Your task to perform on an android device: Search for razer kraken on bestbuy.com, select the first entry, add it to the cart, then select checkout. Image 0: 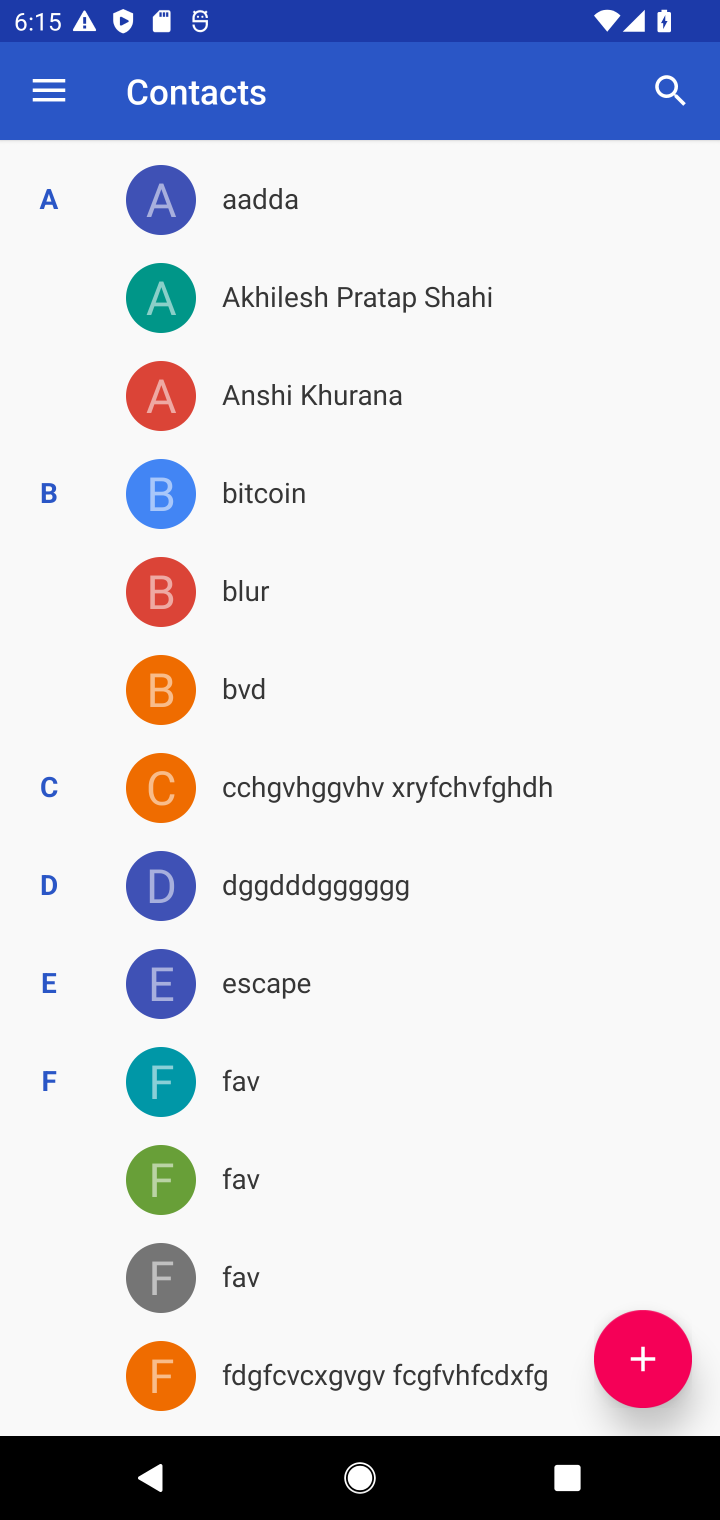
Step 0: press home button
Your task to perform on an android device: Search for razer kraken on bestbuy.com, select the first entry, add it to the cart, then select checkout. Image 1: 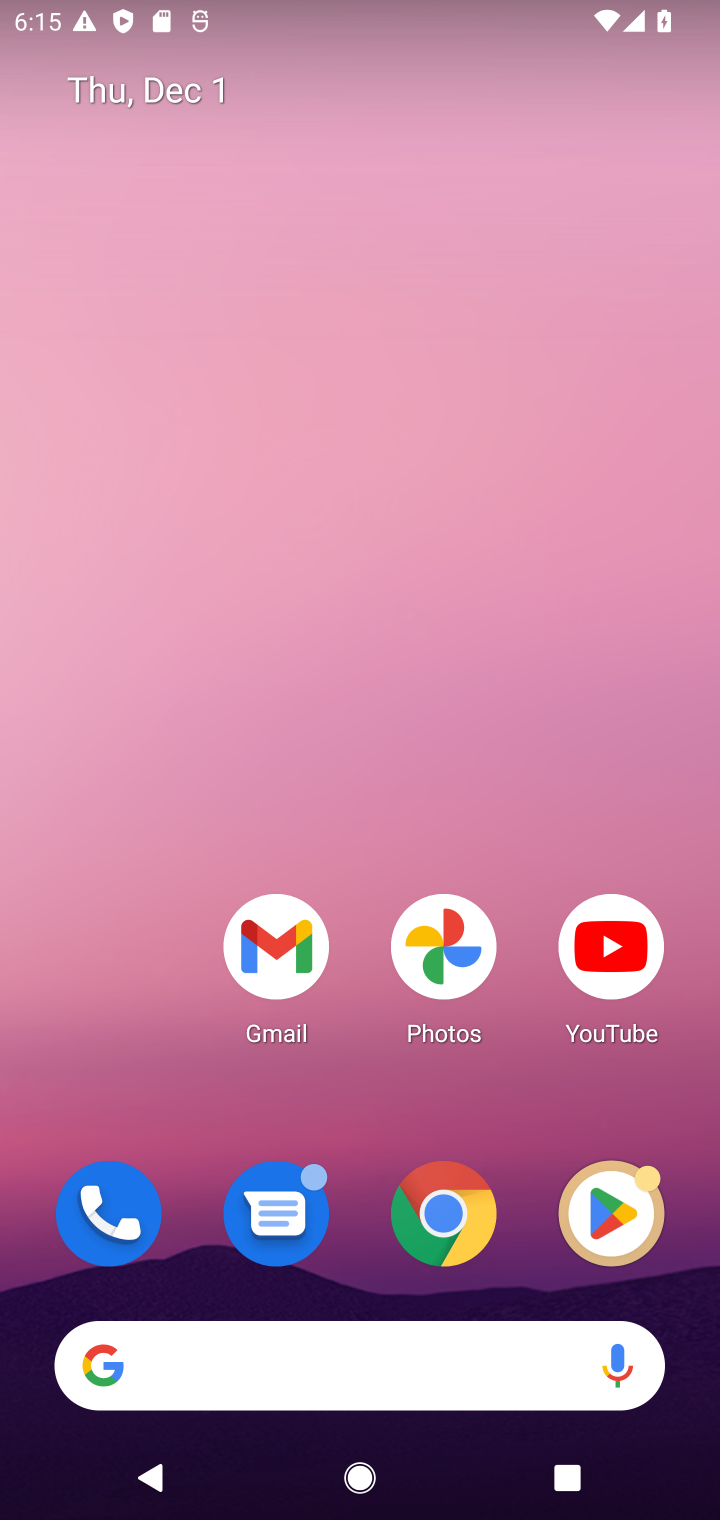
Step 1: click (418, 1354)
Your task to perform on an android device: Search for razer kraken on bestbuy.com, select the first entry, add it to the cart, then select checkout. Image 2: 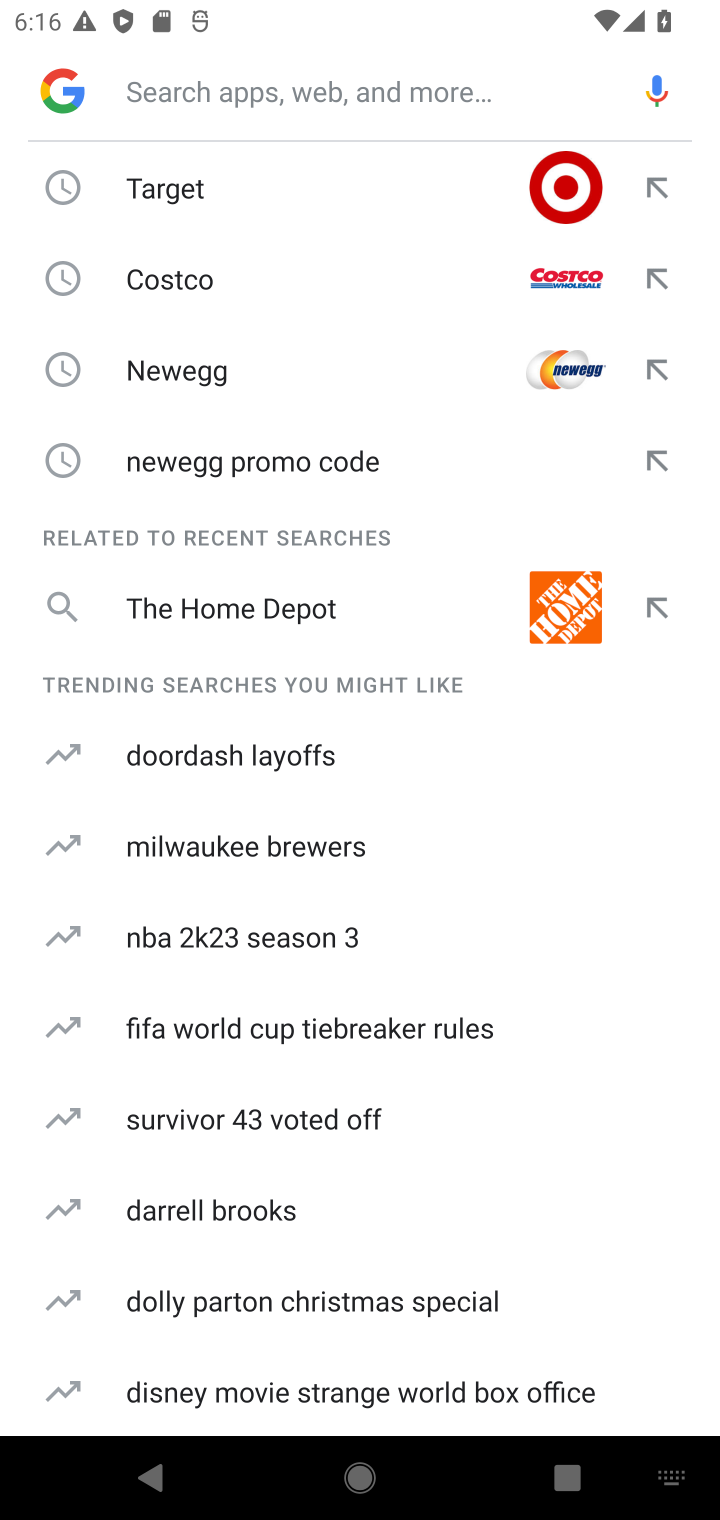
Step 2: type "bestbuy"
Your task to perform on an android device: Search for razer kraken on bestbuy.com, select the first entry, add it to the cart, then select checkout. Image 3: 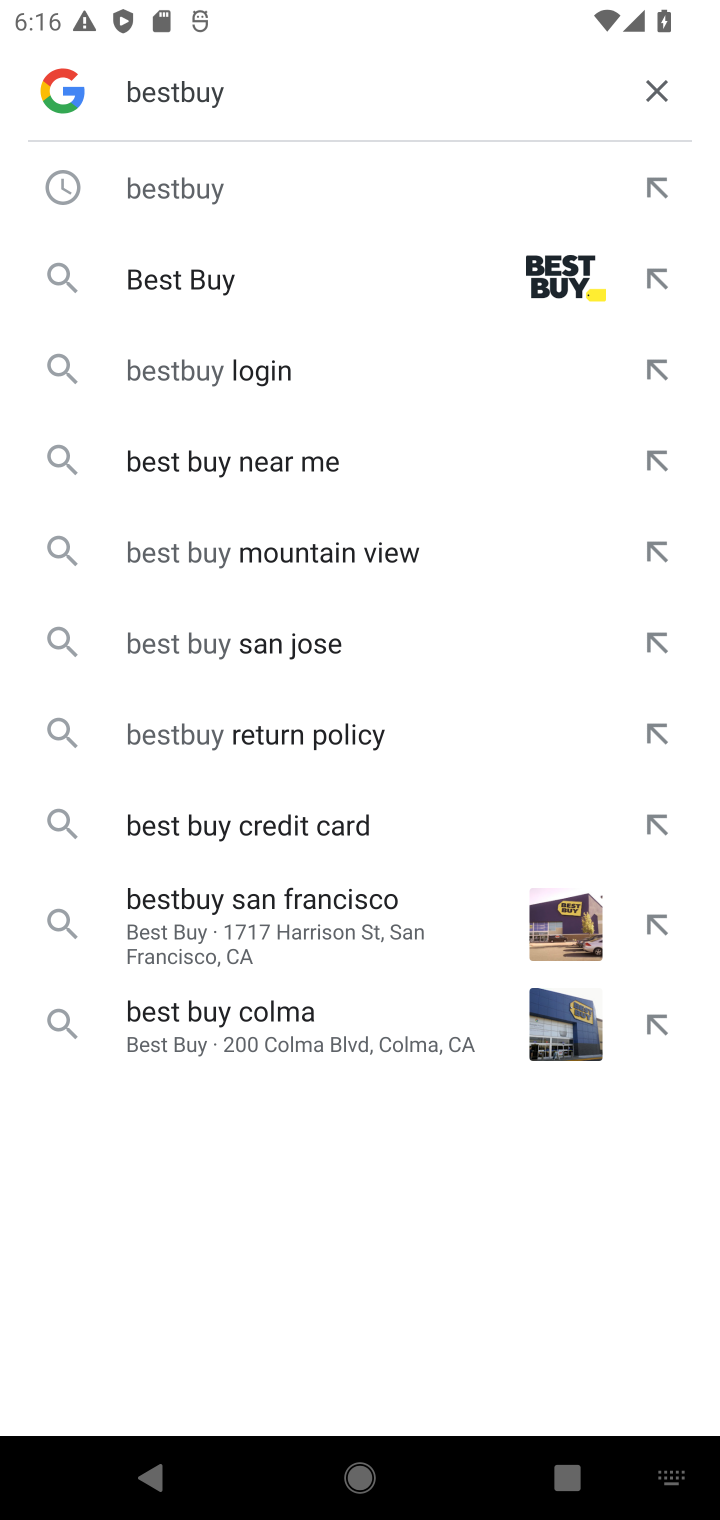
Step 3: click (385, 272)
Your task to perform on an android device: Search for razer kraken on bestbuy.com, select the first entry, add it to the cart, then select checkout. Image 4: 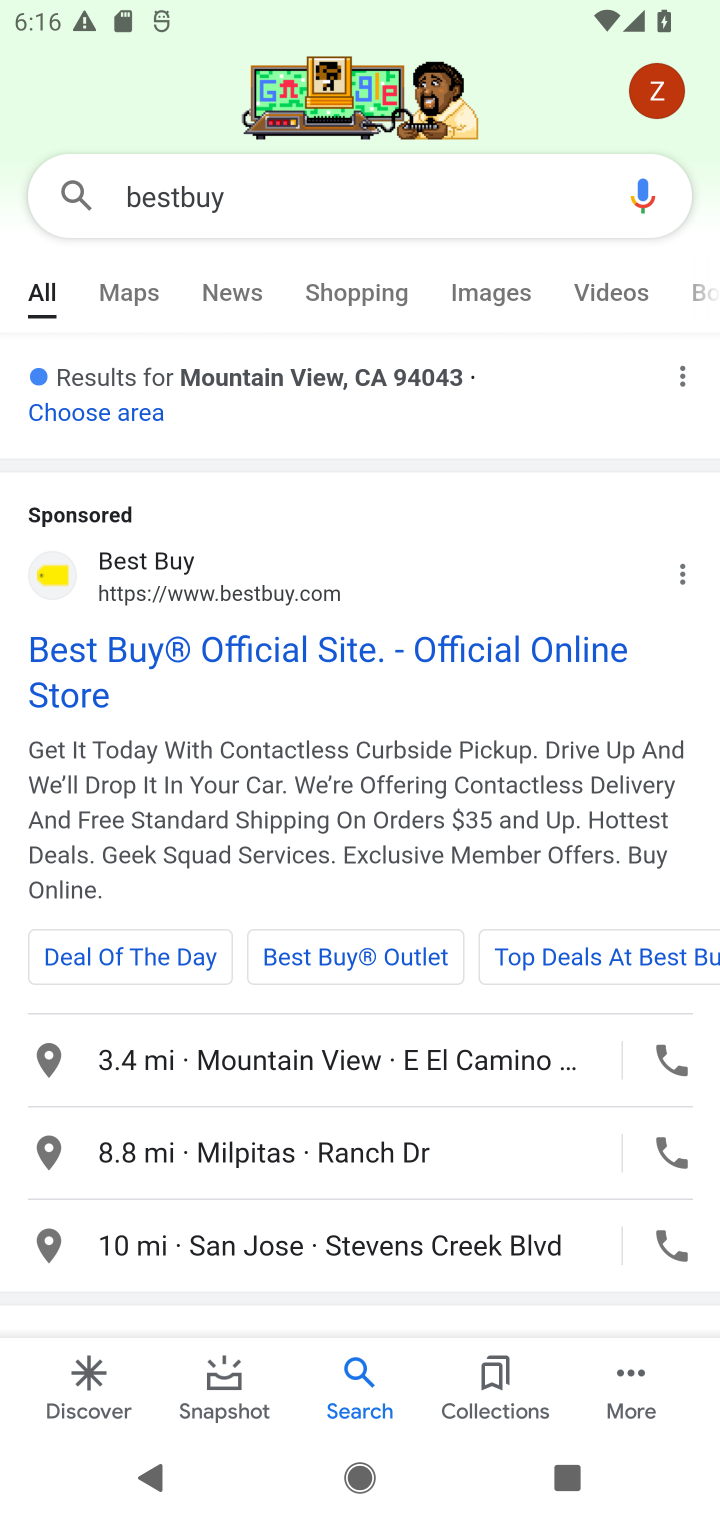
Step 4: click (74, 660)
Your task to perform on an android device: Search for razer kraken on bestbuy.com, select the first entry, add it to the cart, then select checkout. Image 5: 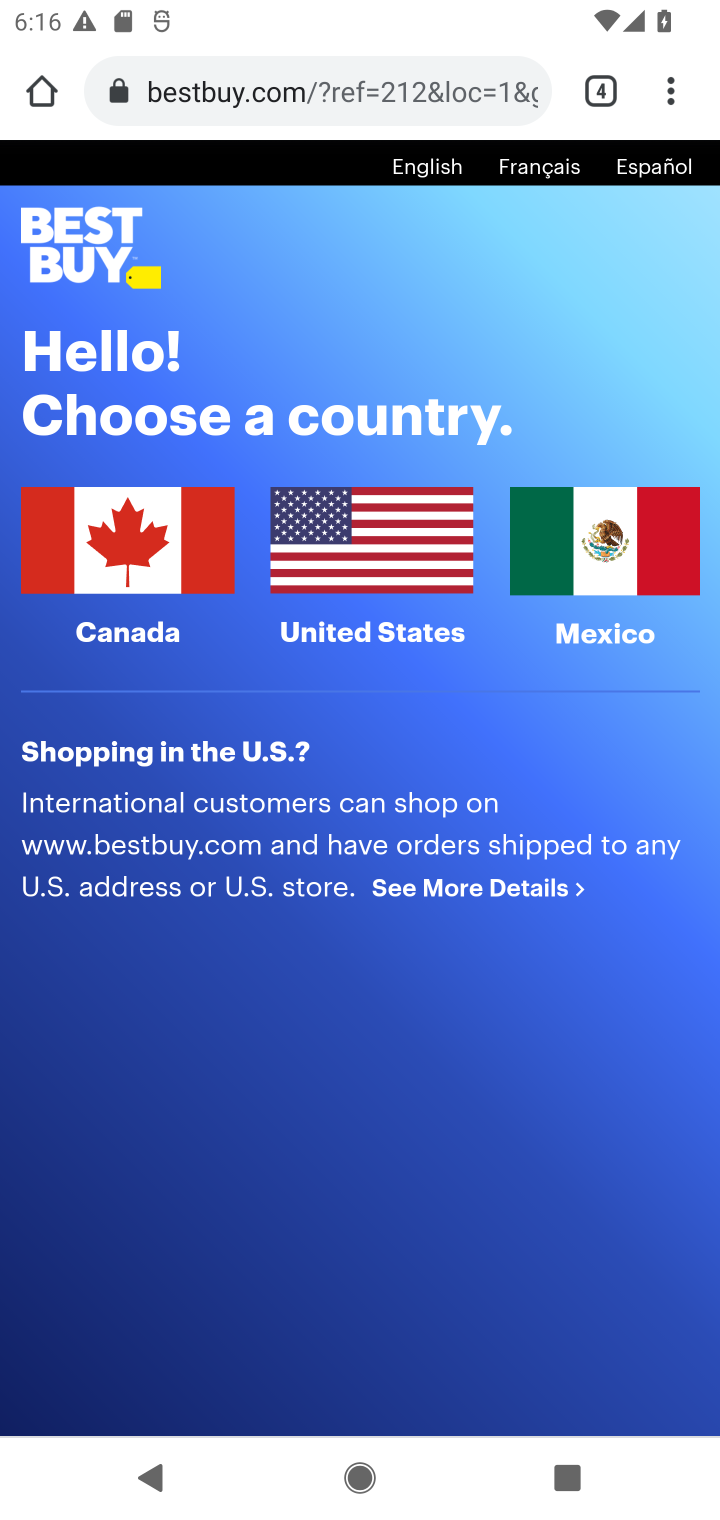
Step 5: click (145, 530)
Your task to perform on an android device: Search for razer kraken on bestbuy.com, select the first entry, add it to the cart, then select checkout. Image 6: 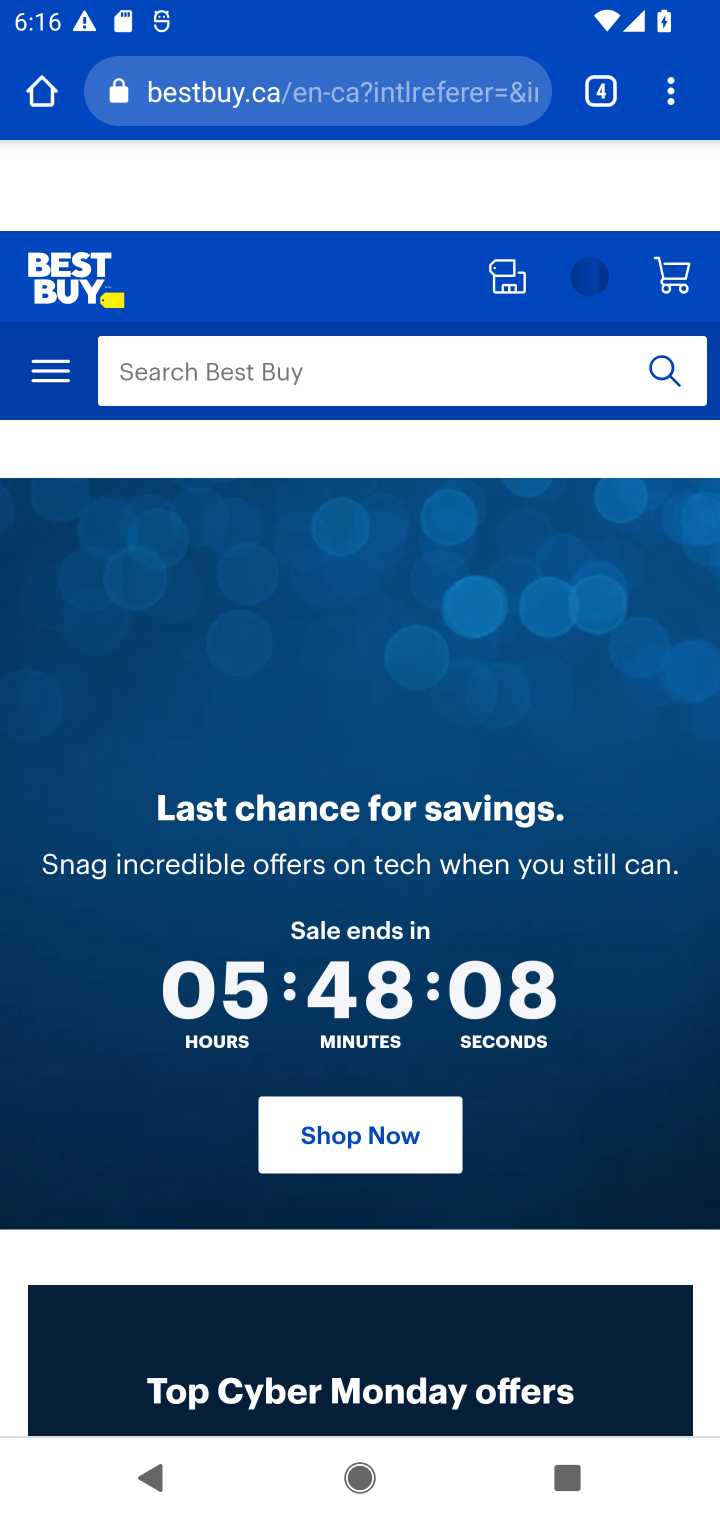
Step 6: click (259, 394)
Your task to perform on an android device: Search for razer kraken on bestbuy.com, select the first entry, add it to the cart, then select checkout. Image 7: 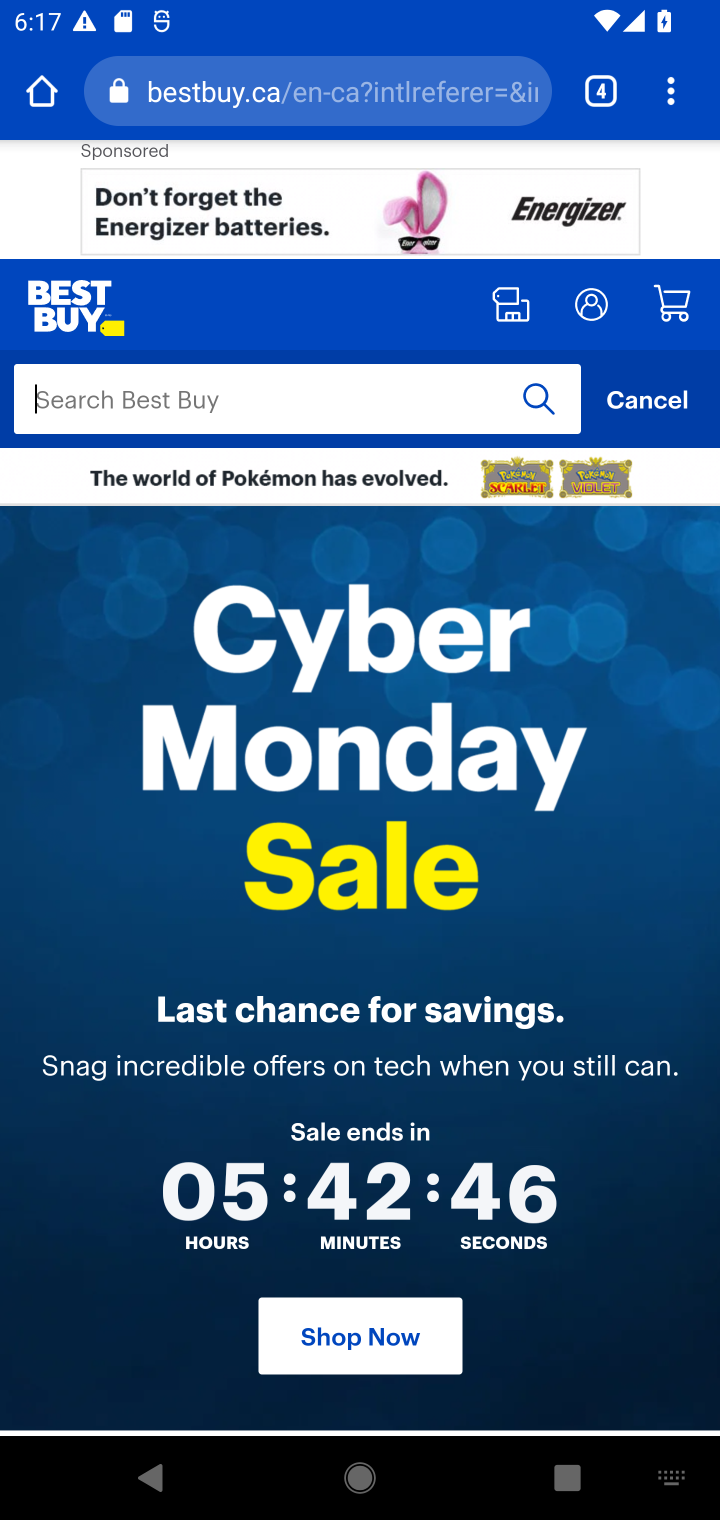
Step 7: type "razer karken"
Your task to perform on an android device: Search for razer kraken on bestbuy.com, select the first entry, add it to the cart, then select checkout. Image 8: 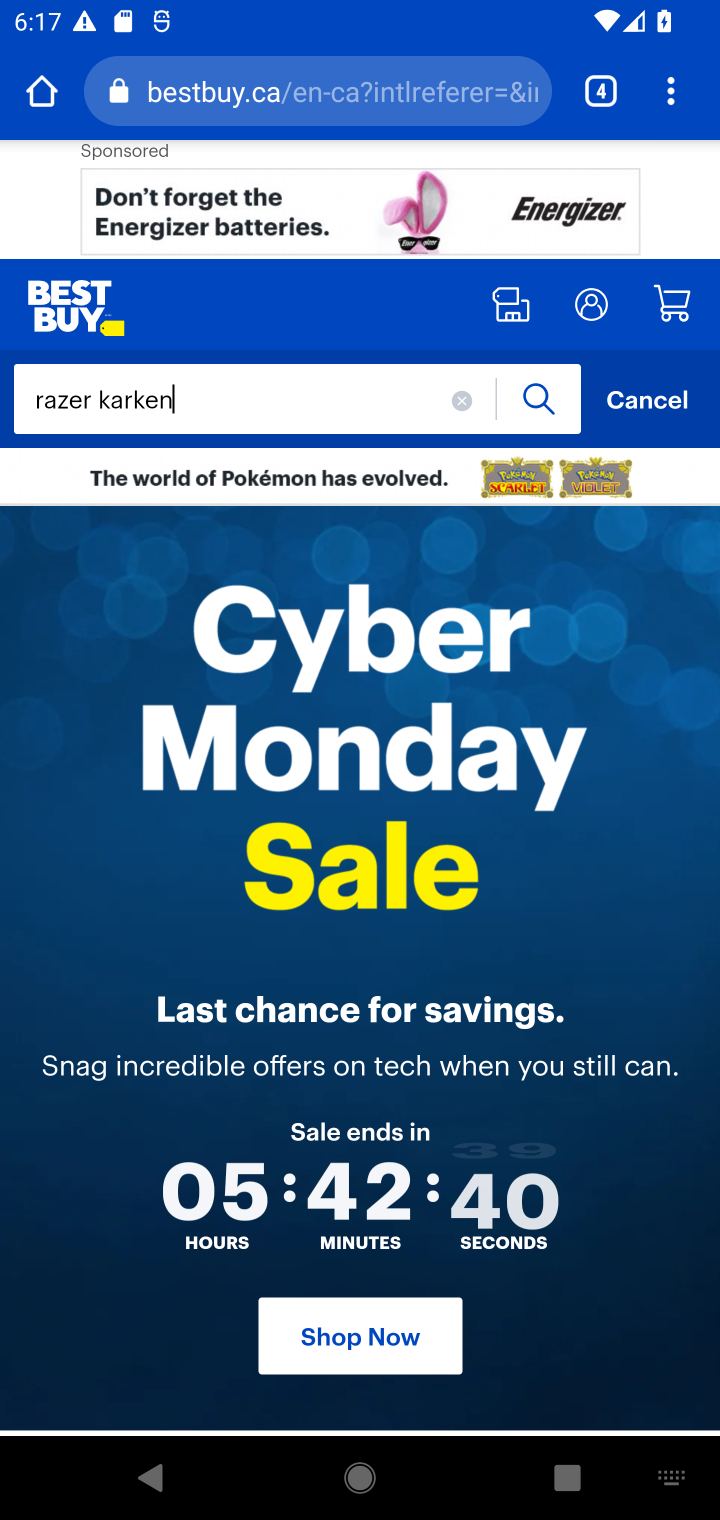
Step 8: click (519, 412)
Your task to perform on an android device: Search for razer kraken on bestbuy.com, select the first entry, add it to the cart, then select checkout. Image 9: 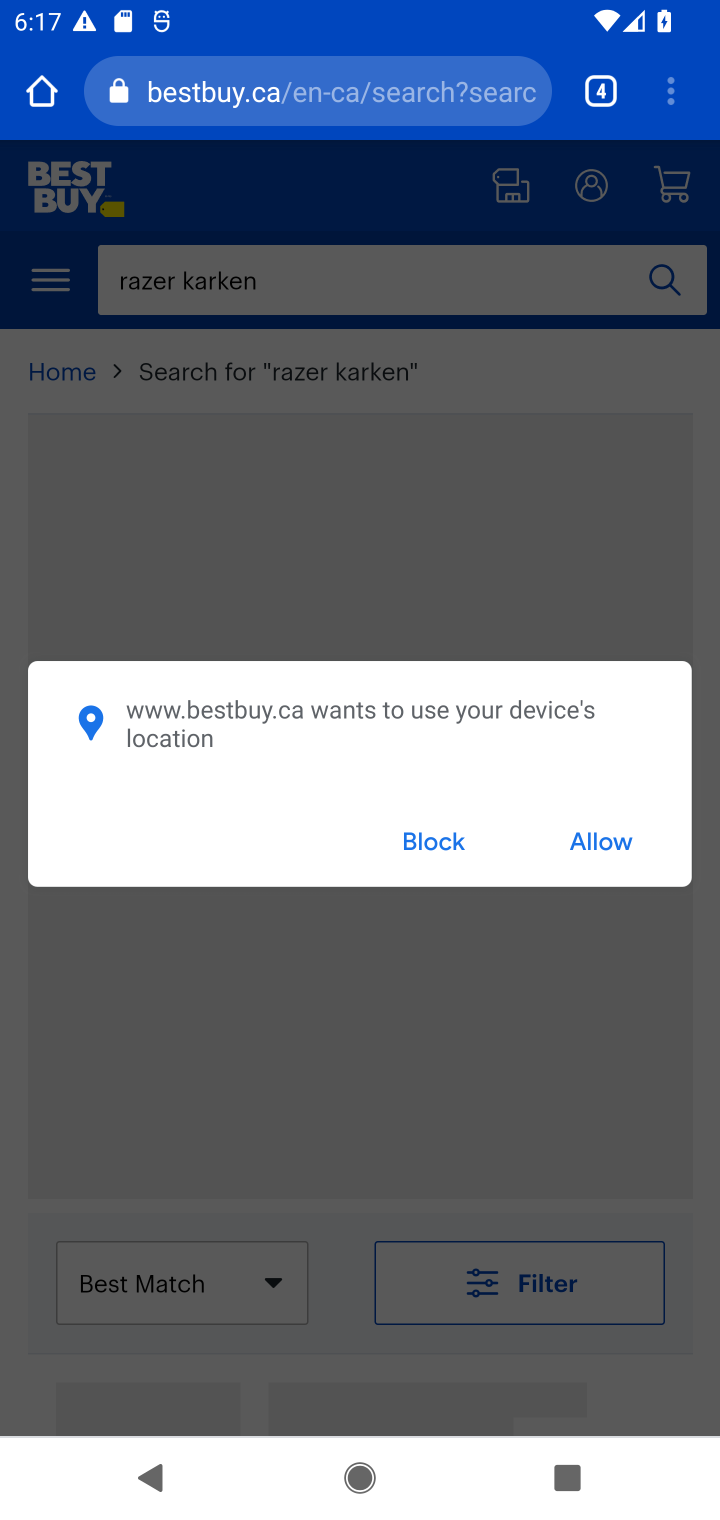
Step 9: click (435, 838)
Your task to perform on an android device: Search for razer kraken on bestbuy.com, select the first entry, add it to the cart, then select checkout. Image 10: 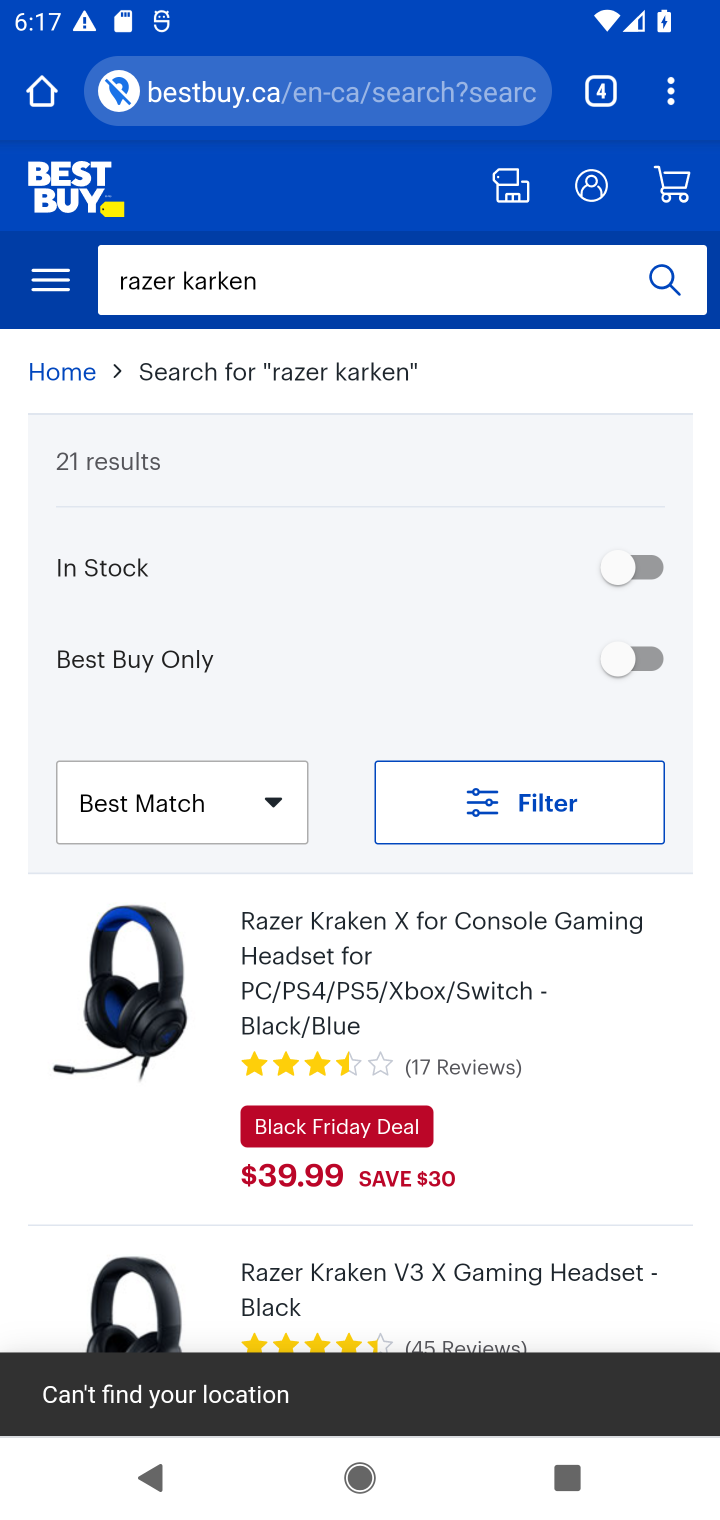
Step 10: click (656, 287)
Your task to perform on an android device: Search for razer kraken on bestbuy.com, select the first entry, add it to the cart, then select checkout. Image 11: 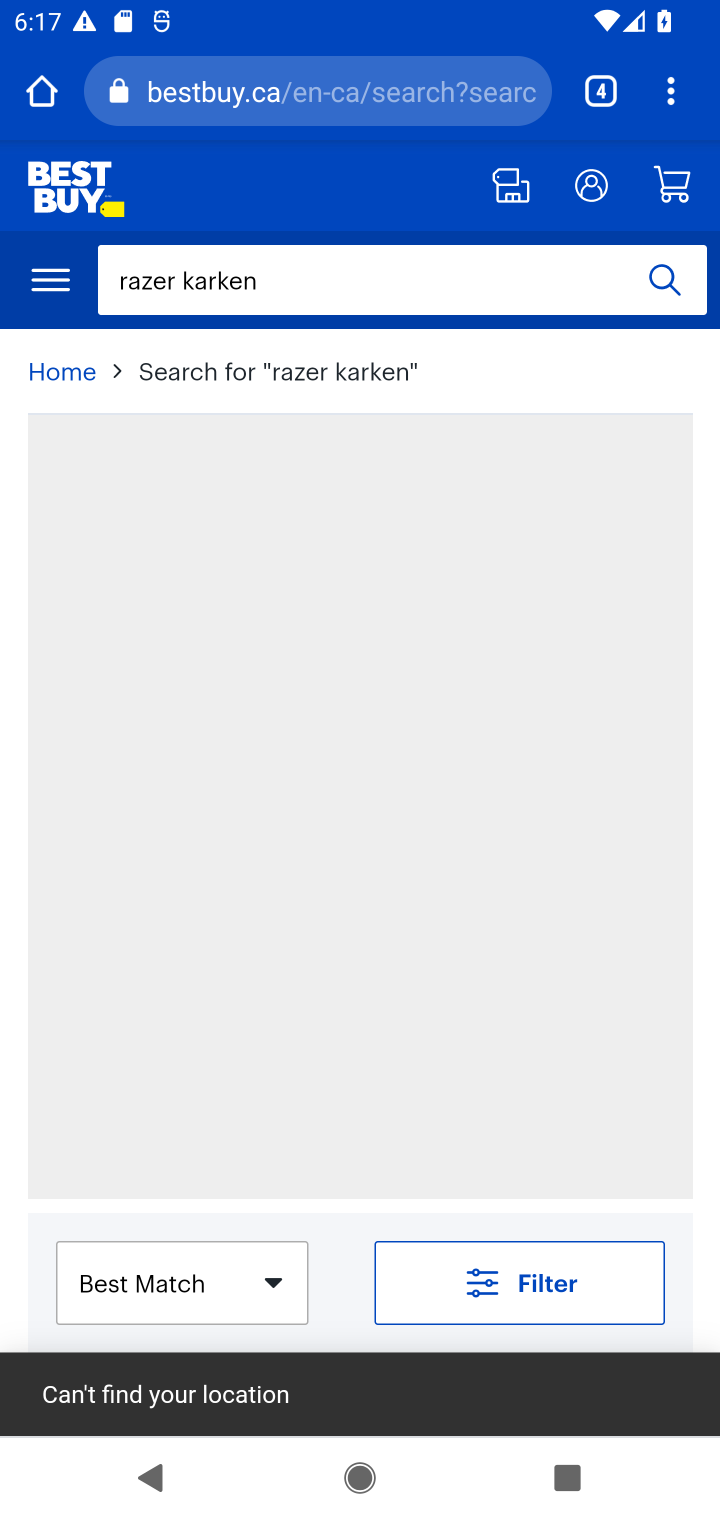
Step 11: click (356, 991)
Your task to perform on an android device: Search for razer kraken on bestbuy.com, select the first entry, add it to the cart, then select checkout. Image 12: 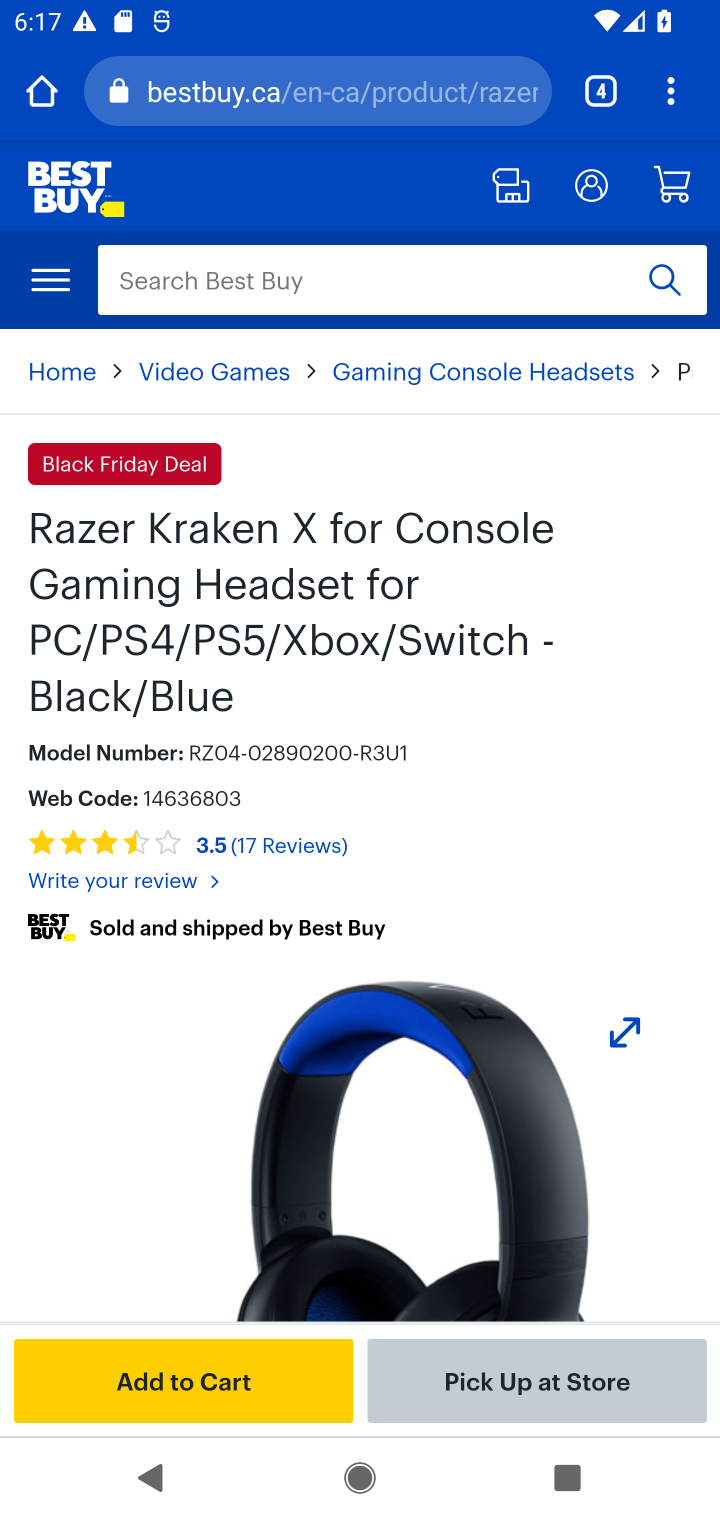
Step 12: click (233, 1382)
Your task to perform on an android device: Search for razer kraken on bestbuy.com, select the first entry, add it to the cart, then select checkout. Image 13: 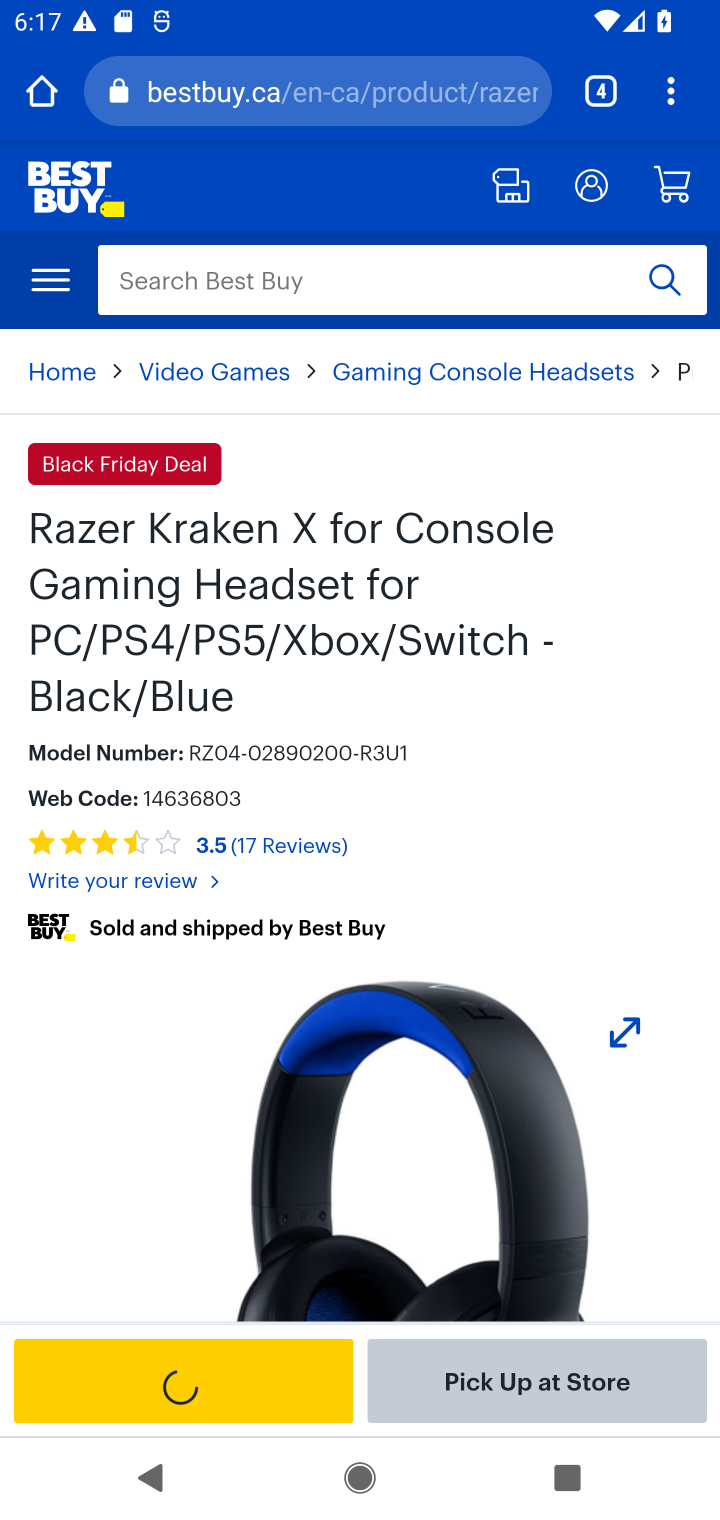
Step 13: task complete